Your task to perform on an android device: What is the news today? Image 0: 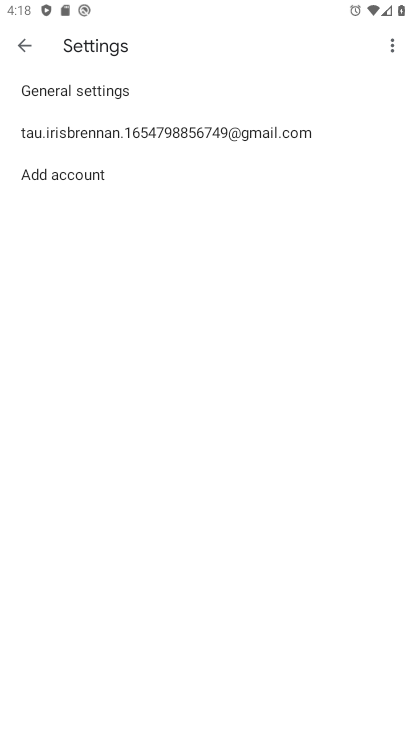
Step 0: press home button
Your task to perform on an android device: What is the news today? Image 1: 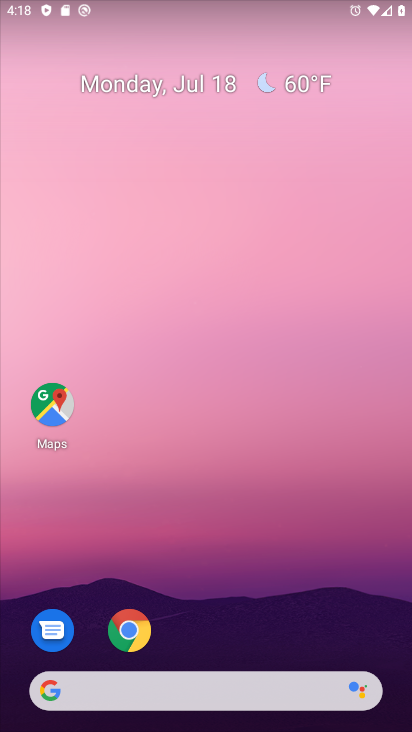
Step 1: drag from (10, 264) to (369, 273)
Your task to perform on an android device: What is the news today? Image 2: 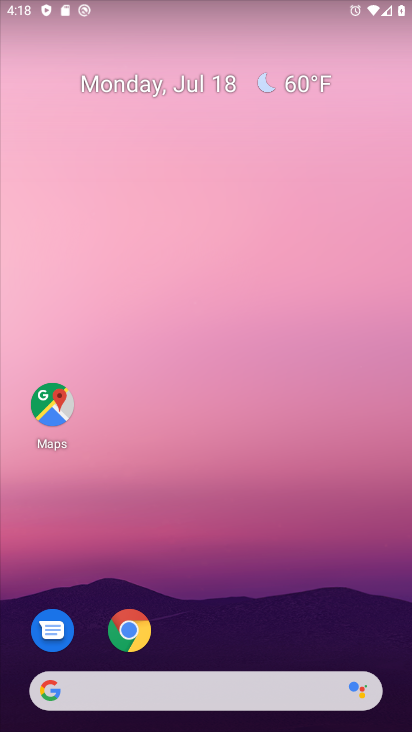
Step 2: drag from (17, 247) to (343, 316)
Your task to perform on an android device: What is the news today? Image 3: 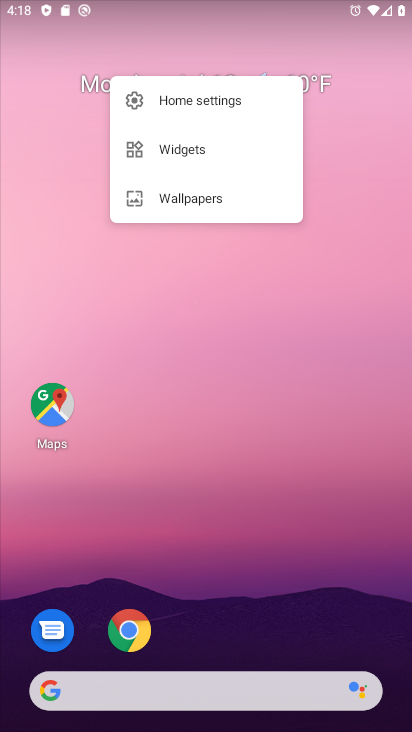
Step 3: click (194, 284)
Your task to perform on an android device: What is the news today? Image 4: 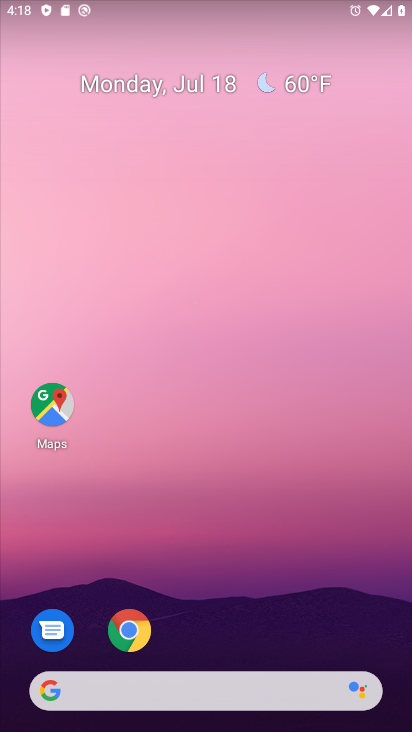
Step 4: task complete